Your task to perform on an android device: open app "Google Photos" (install if not already installed) Image 0: 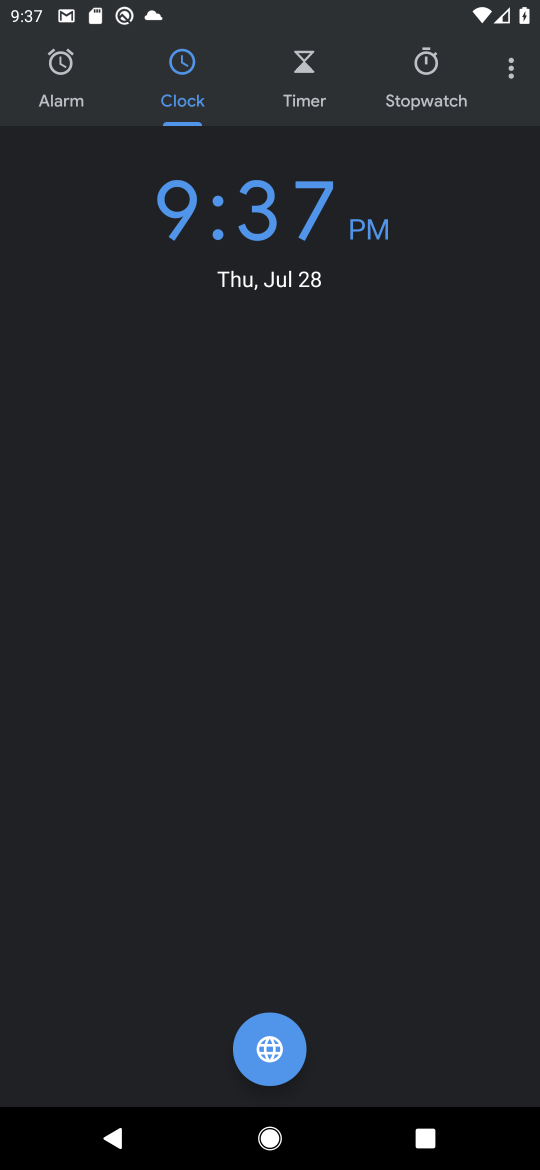
Step 0: press home button
Your task to perform on an android device: open app "Google Photos" (install if not already installed) Image 1: 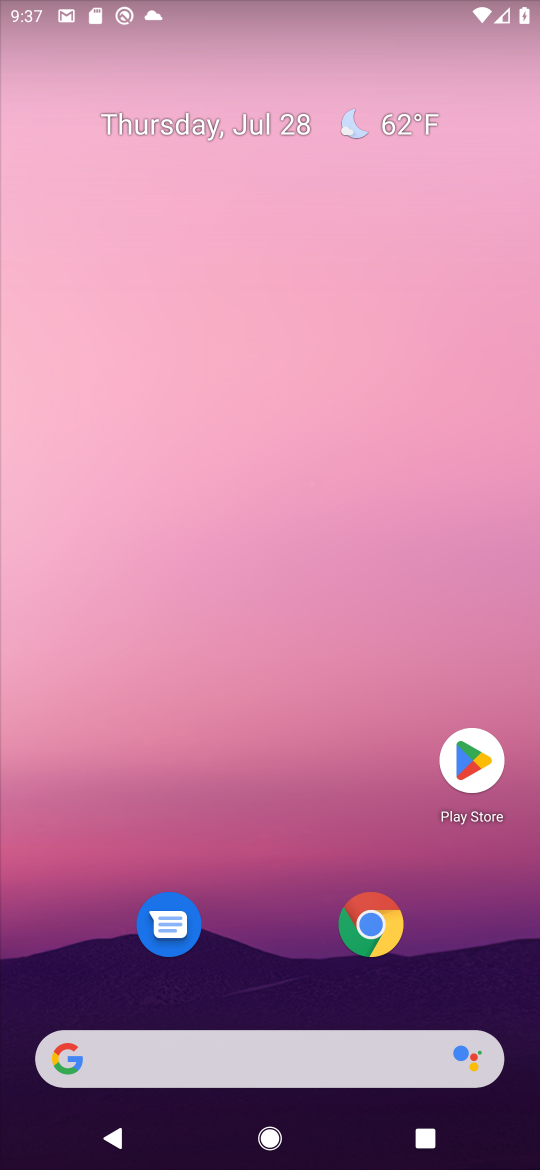
Step 1: drag from (263, 1063) to (458, 47)
Your task to perform on an android device: open app "Google Photos" (install if not already installed) Image 2: 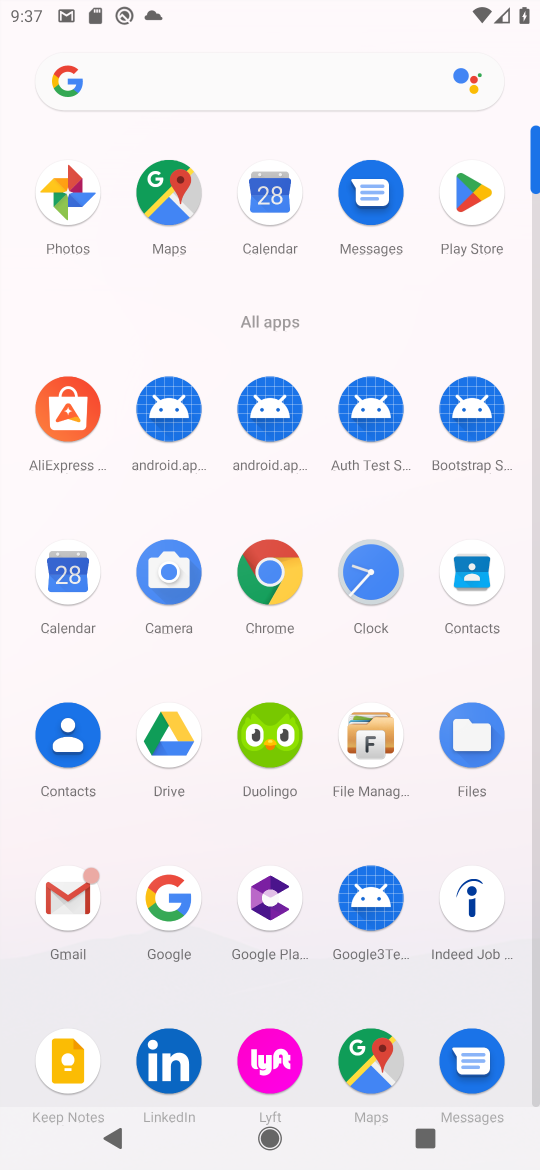
Step 2: drag from (323, 925) to (479, 102)
Your task to perform on an android device: open app "Google Photos" (install if not already installed) Image 3: 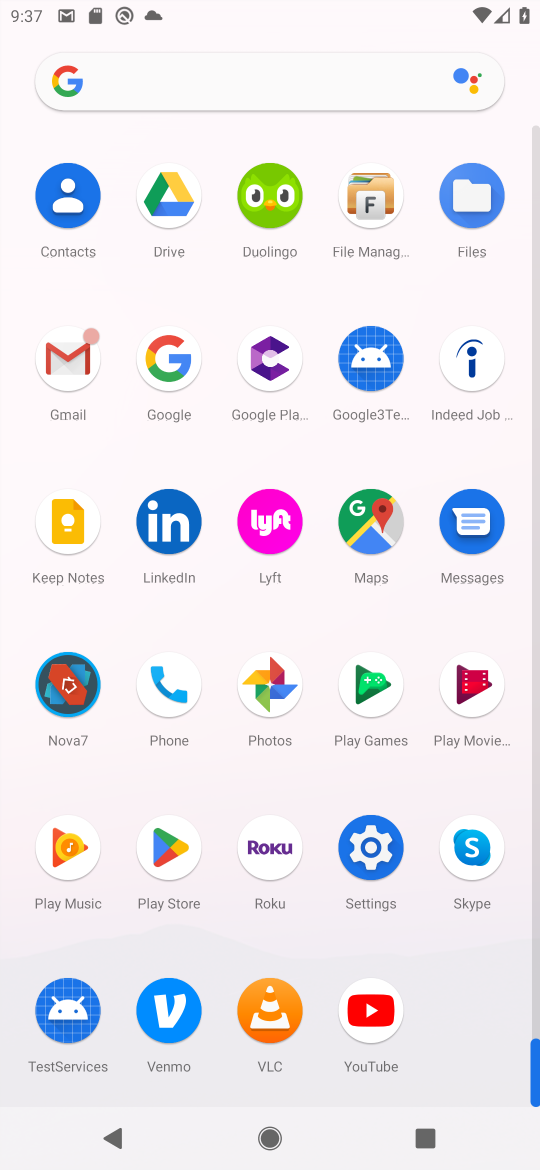
Step 3: click (276, 685)
Your task to perform on an android device: open app "Google Photos" (install if not already installed) Image 4: 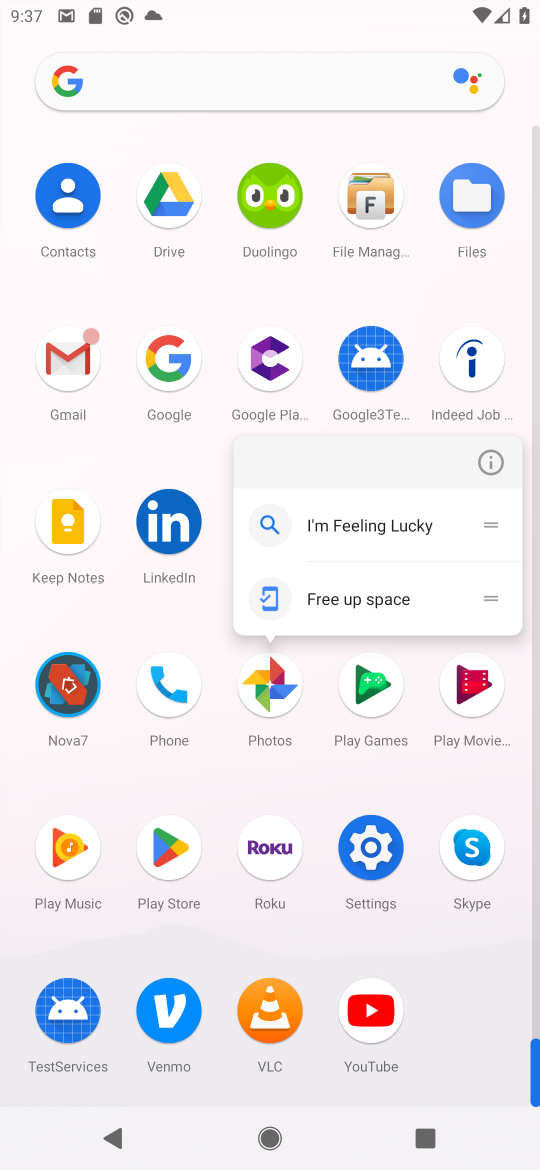
Step 4: click (276, 685)
Your task to perform on an android device: open app "Google Photos" (install if not already installed) Image 5: 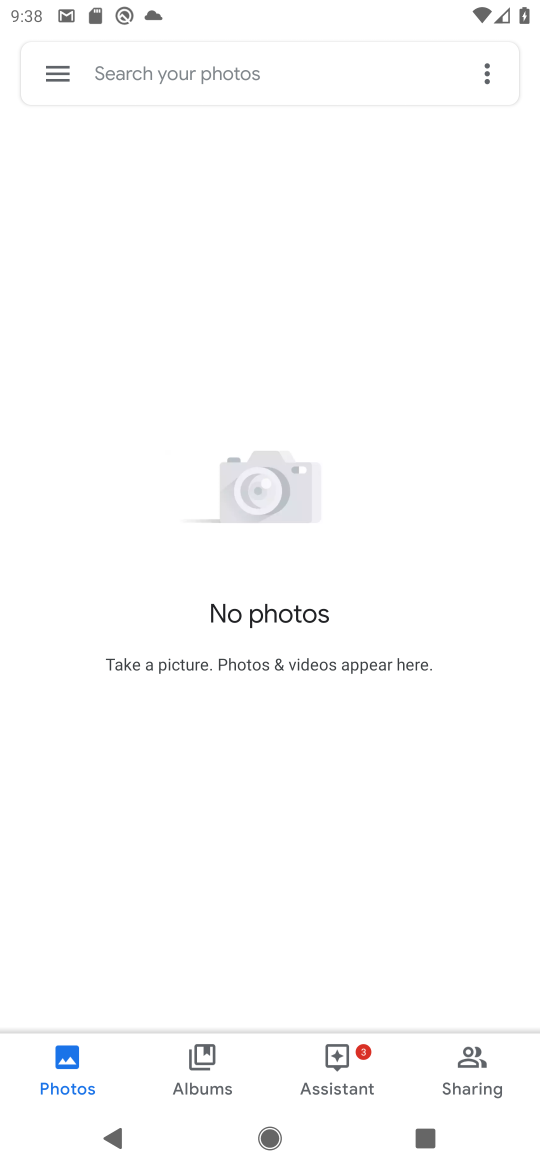
Step 5: task complete